Your task to perform on an android device: uninstall "Move to iOS" Image 0: 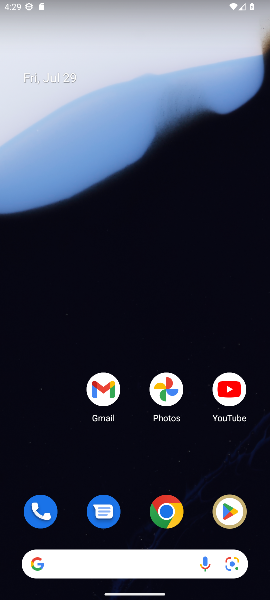
Step 0: drag from (114, 555) to (49, 95)
Your task to perform on an android device: uninstall "Move to iOS" Image 1: 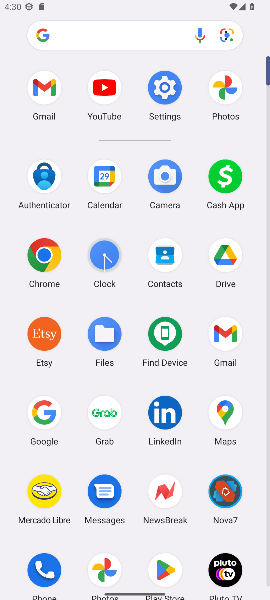
Step 1: drag from (187, 539) to (158, 146)
Your task to perform on an android device: uninstall "Move to iOS" Image 2: 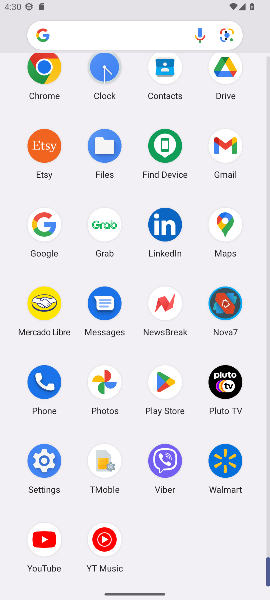
Step 2: click (161, 382)
Your task to perform on an android device: uninstall "Move to iOS" Image 3: 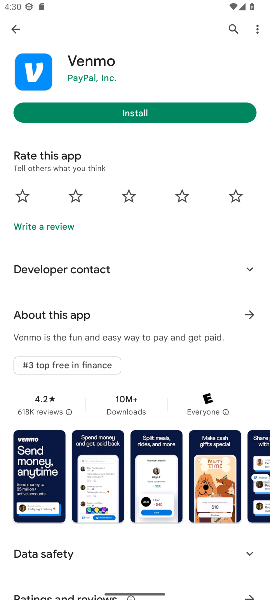
Step 3: click (14, 28)
Your task to perform on an android device: uninstall "Move to iOS" Image 4: 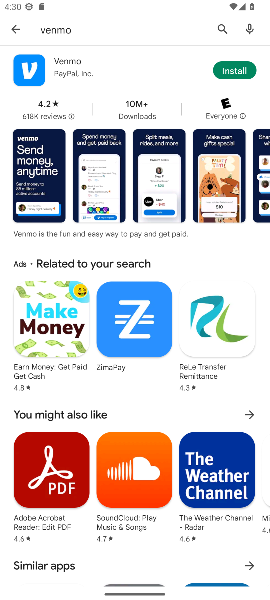
Step 4: click (13, 30)
Your task to perform on an android device: uninstall "Move to iOS" Image 5: 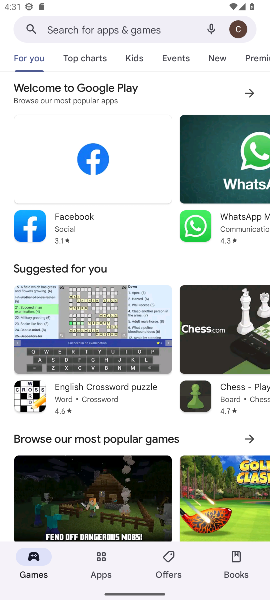
Step 5: click (85, 30)
Your task to perform on an android device: uninstall "Move to iOS" Image 6: 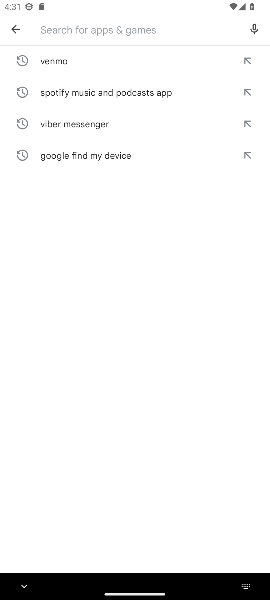
Step 6: type "Move to iOS"
Your task to perform on an android device: uninstall "Move to iOS" Image 7: 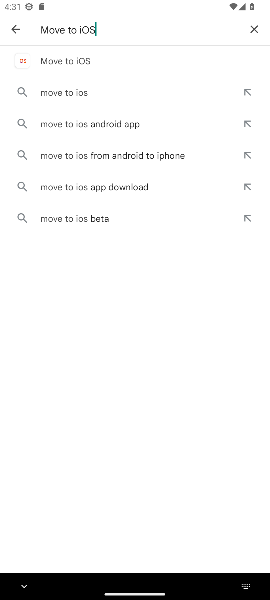
Step 7: click (51, 59)
Your task to perform on an android device: uninstall "Move to iOS" Image 8: 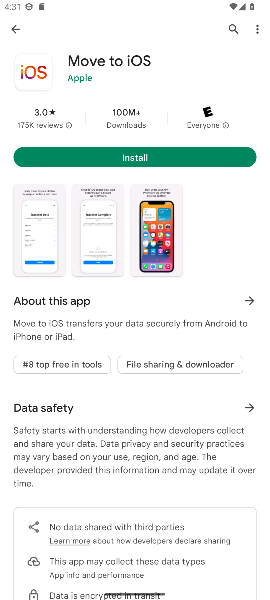
Step 8: task complete